Your task to perform on an android device: Open calendar and show me the third week of next month Image 0: 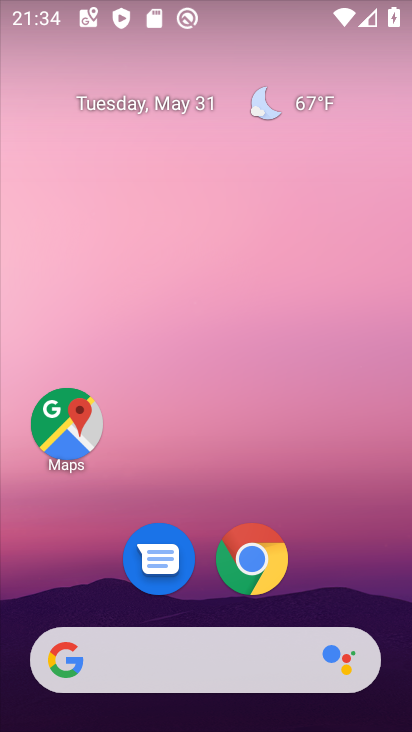
Step 0: drag from (346, 494) to (367, 5)
Your task to perform on an android device: Open calendar and show me the third week of next month Image 1: 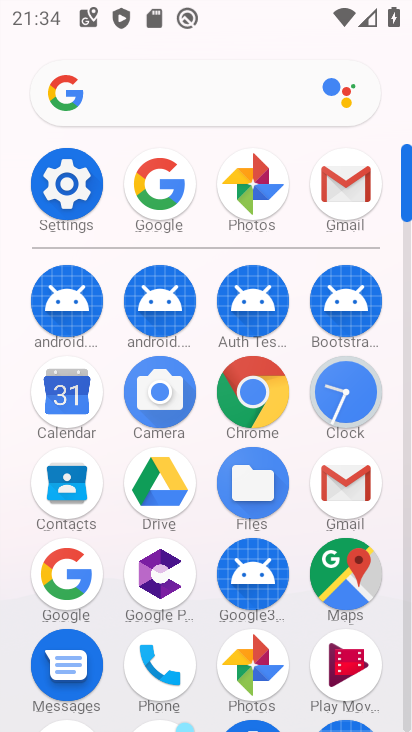
Step 1: click (74, 395)
Your task to perform on an android device: Open calendar and show me the third week of next month Image 2: 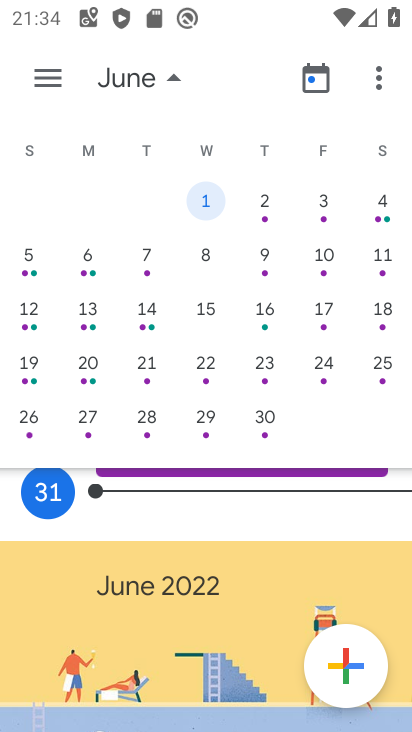
Step 2: drag from (311, 433) to (240, 419)
Your task to perform on an android device: Open calendar and show me the third week of next month Image 3: 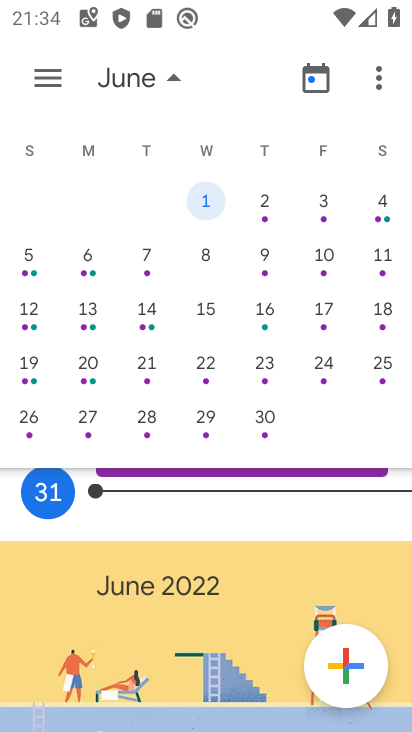
Step 3: click (203, 316)
Your task to perform on an android device: Open calendar and show me the third week of next month Image 4: 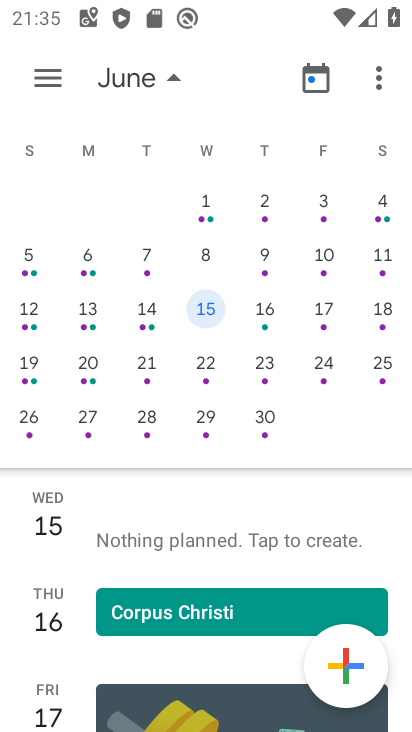
Step 4: task complete